Your task to perform on an android device: toggle airplane mode Image 0: 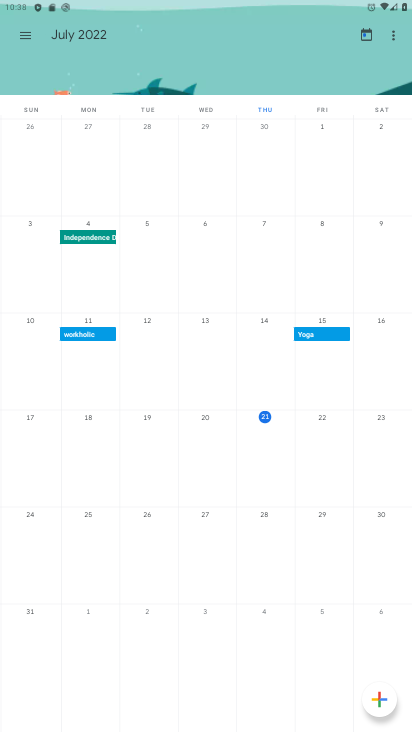
Step 0: press home button
Your task to perform on an android device: toggle airplane mode Image 1: 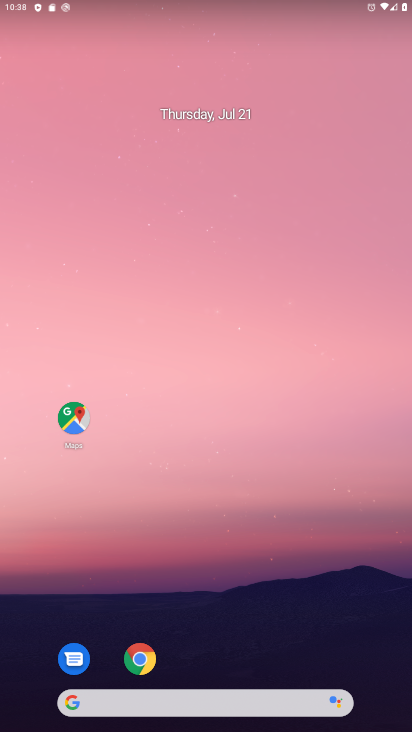
Step 1: drag from (372, 6) to (376, 442)
Your task to perform on an android device: toggle airplane mode Image 2: 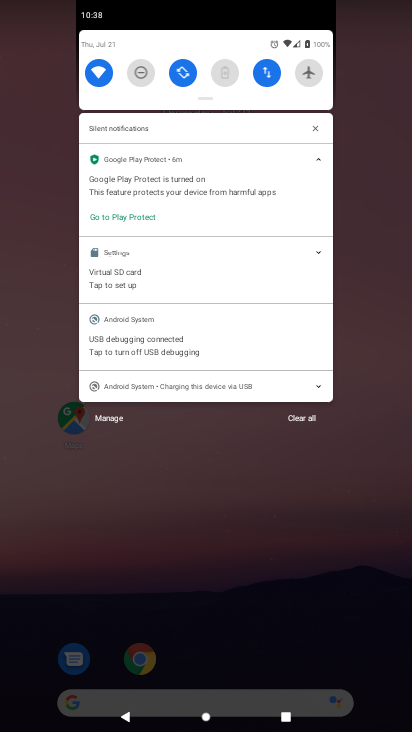
Step 2: click (307, 78)
Your task to perform on an android device: toggle airplane mode Image 3: 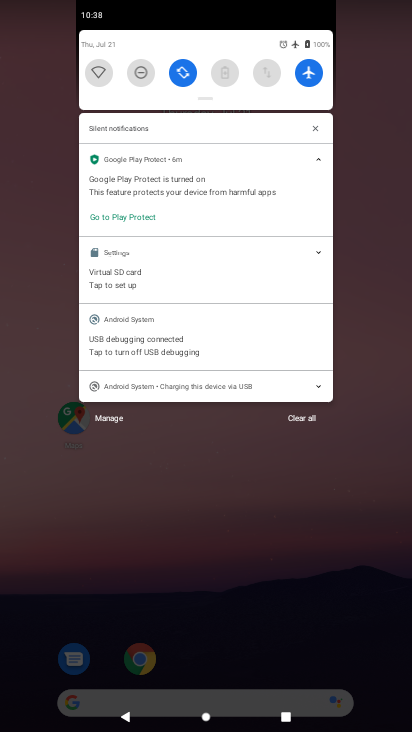
Step 3: task complete